Your task to perform on an android device: Open sound settings Image 0: 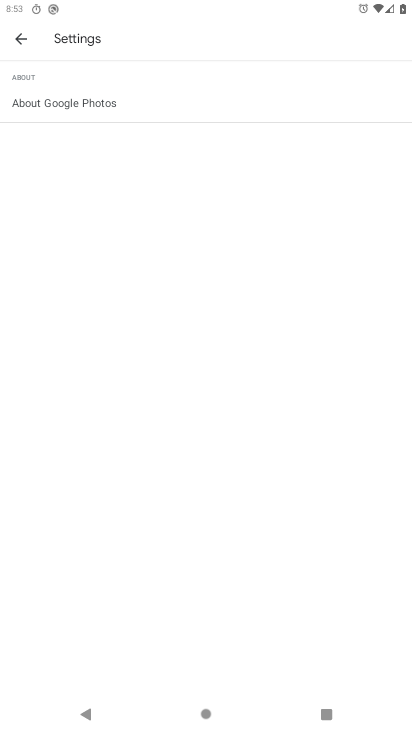
Step 0: press home button
Your task to perform on an android device: Open sound settings Image 1: 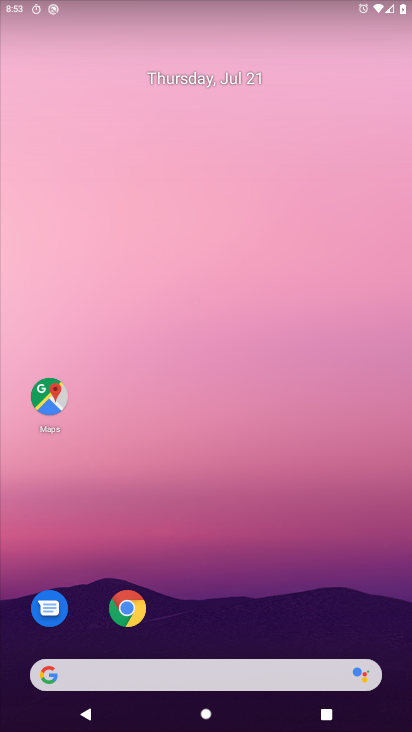
Step 1: drag from (24, 686) to (271, 195)
Your task to perform on an android device: Open sound settings Image 2: 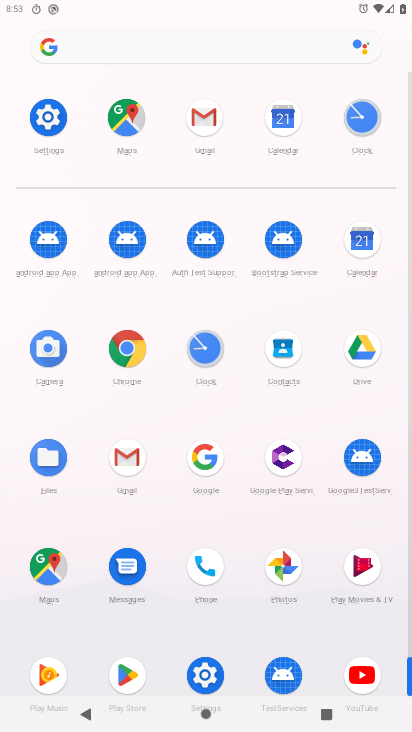
Step 2: click (204, 667)
Your task to perform on an android device: Open sound settings Image 3: 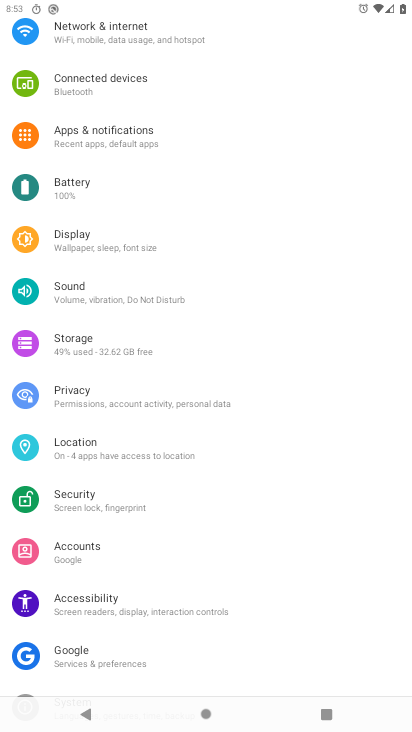
Step 3: click (83, 294)
Your task to perform on an android device: Open sound settings Image 4: 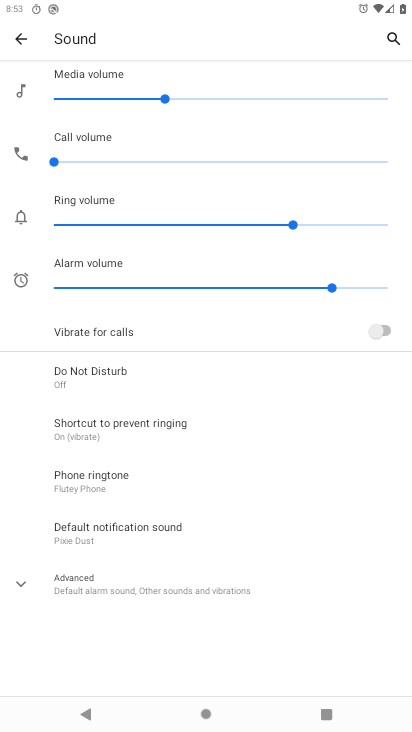
Step 4: task complete